Your task to perform on an android device: Open Google Chrome Image 0: 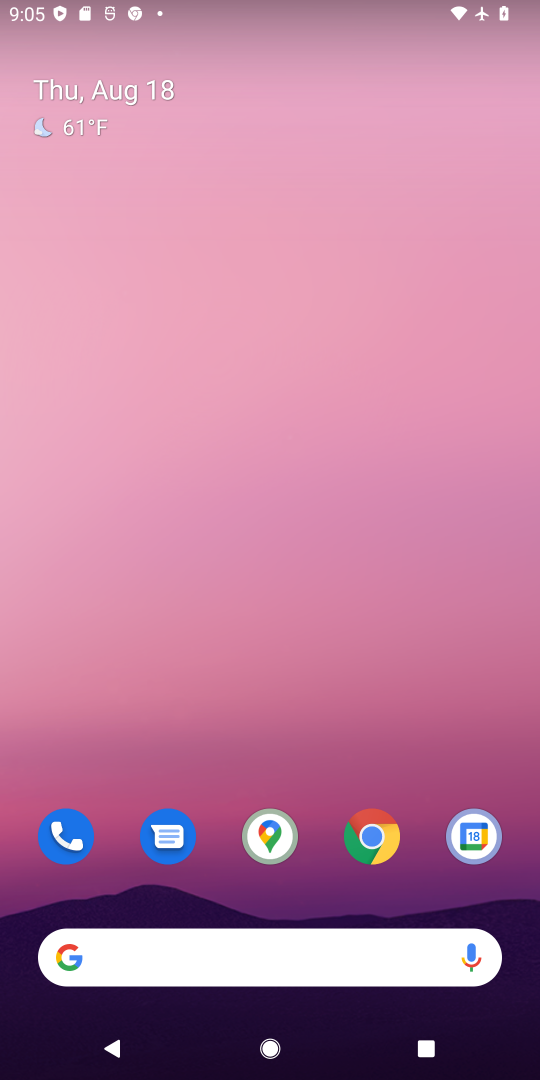
Step 0: drag from (306, 735) to (265, 0)
Your task to perform on an android device: Open Google Chrome Image 1: 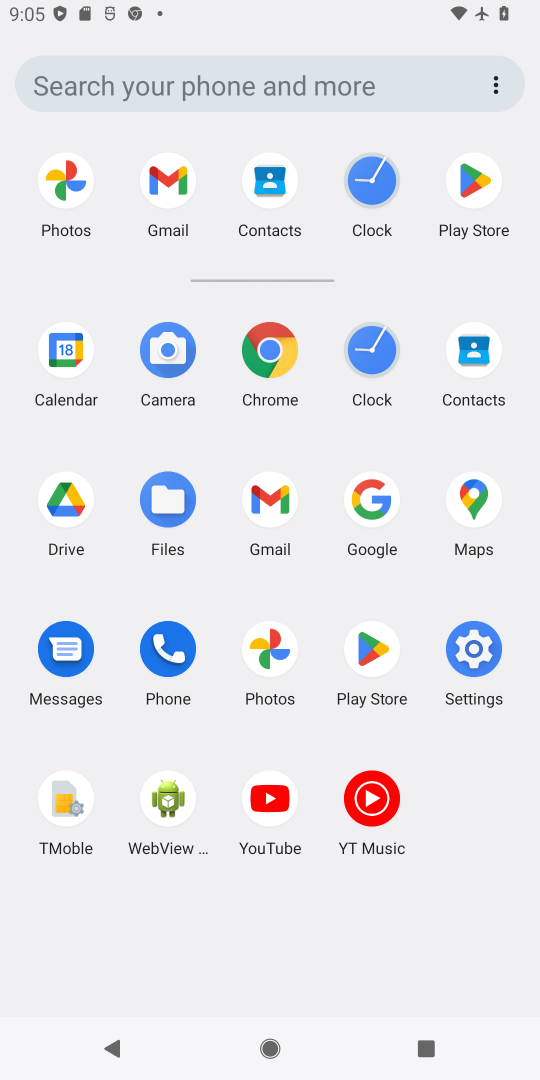
Step 1: click (273, 346)
Your task to perform on an android device: Open Google Chrome Image 2: 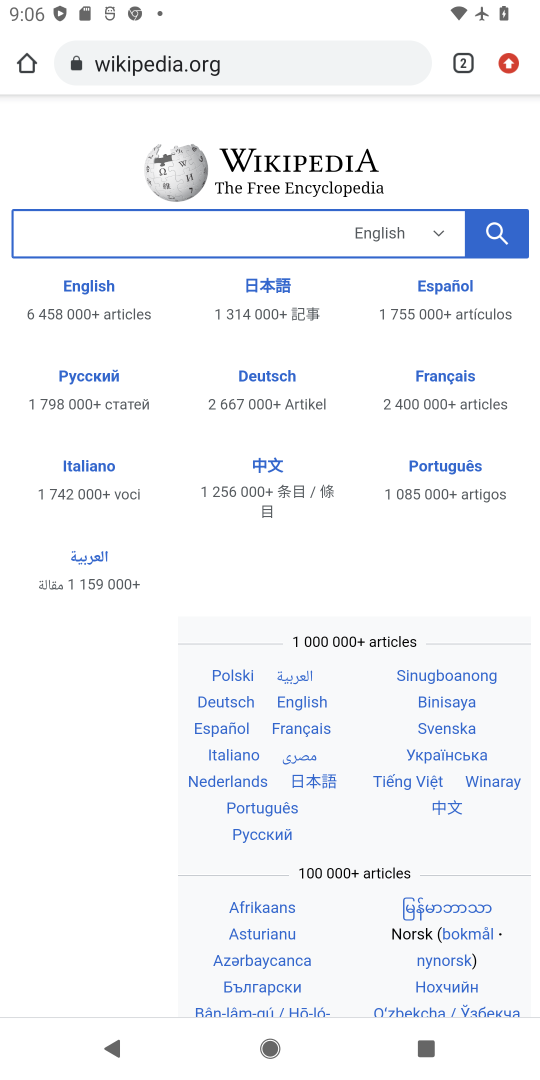
Step 2: task complete